Your task to perform on an android device: Turn off the flashlight Image 0: 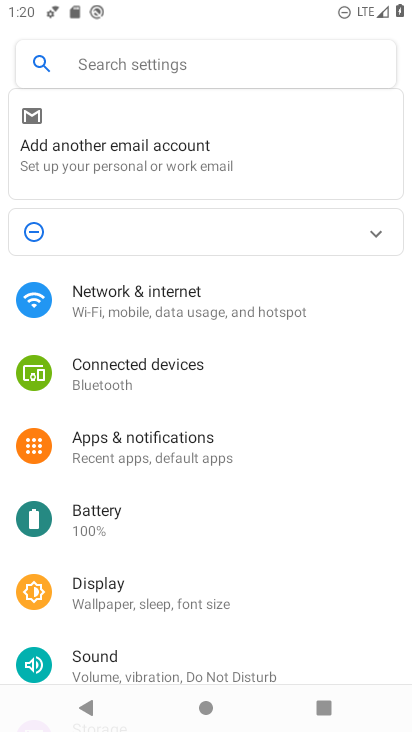
Step 0: press home button
Your task to perform on an android device: Turn off the flashlight Image 1: 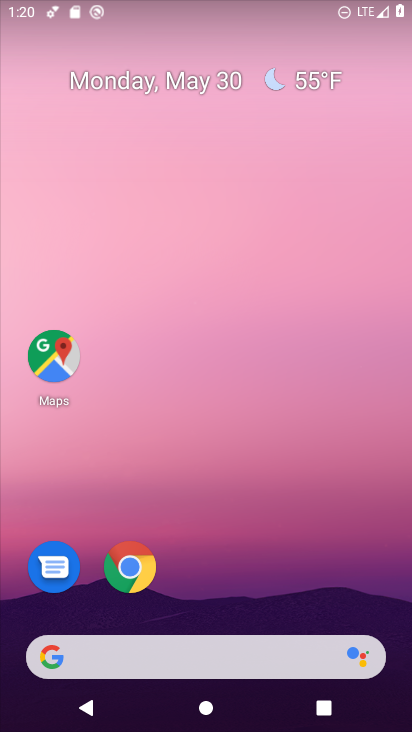
Step 1: drag from (213, 604) to (244, 211)
Your task to perform on an android device: Turn off the flashlight Image 2: 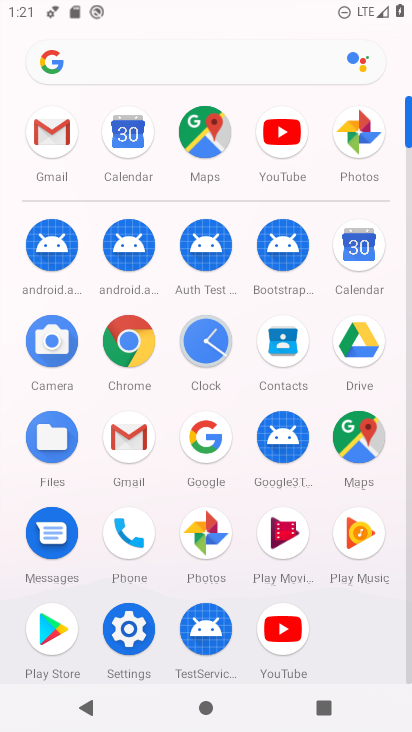
Step 2: click (126, 624)
Your task to perform on an android device: Turn off the flashlight Image 3: 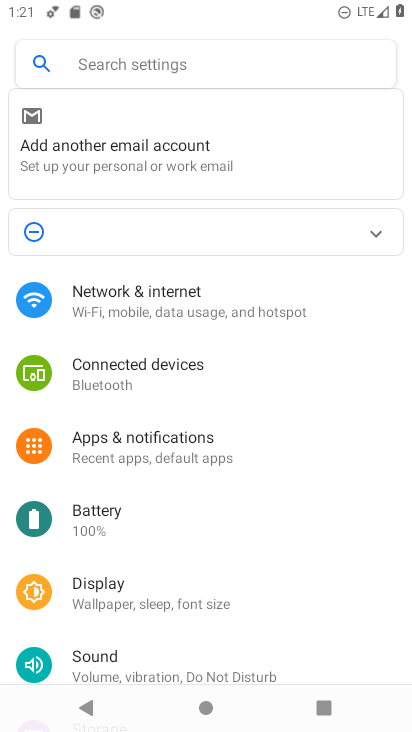
Step 3: click (125, 53)
Your task to perform on an android device: Turn off the flashlight Image 4: 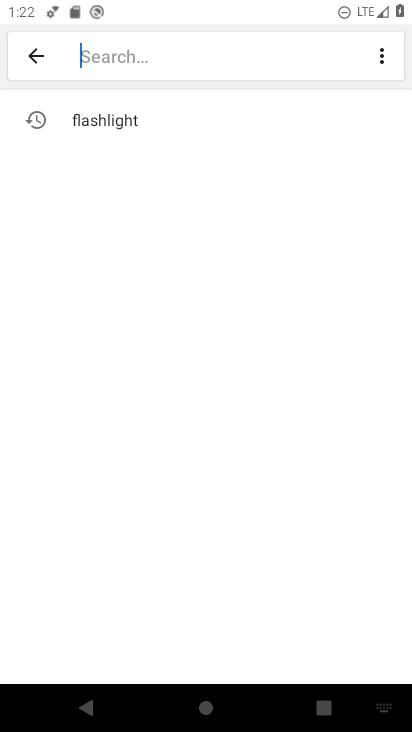
Step 4: click (148, 110)
Your task to perform on an android device: Turn off the flashlight Image 5: 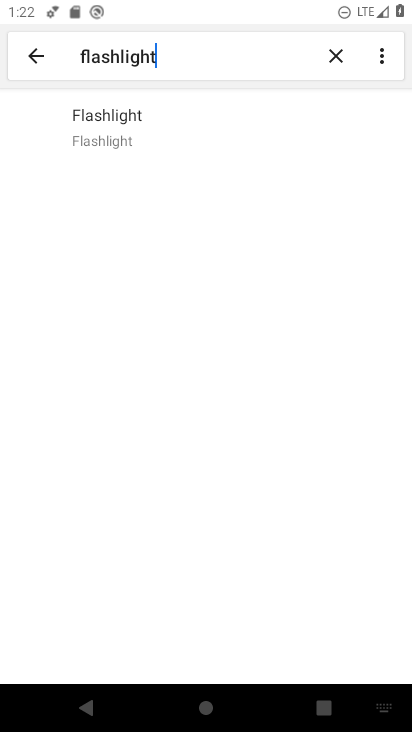
Step 5: task complete